Your task to perform on an android device: toggle show notifications on the lock screen Image 0: 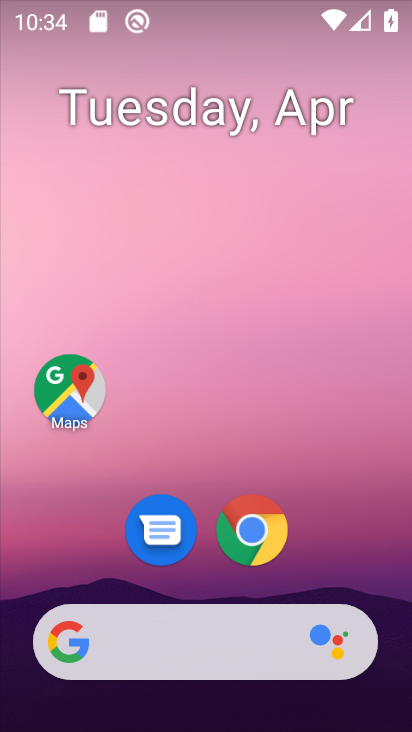
Step 0: drag from (149, 627) to (118, 147)
Your task to perform on an android device: toggle show notifications on the lock screen Image 1: 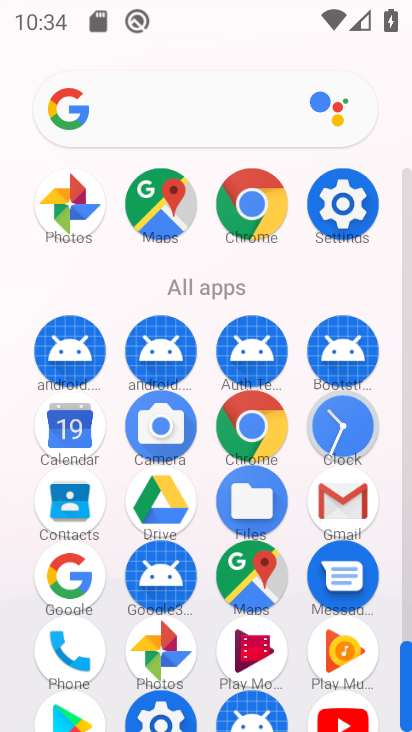
Step 1: click (340, 204)
Your task to perform on an android device: toggle show notifications on the lock screen Image 2: 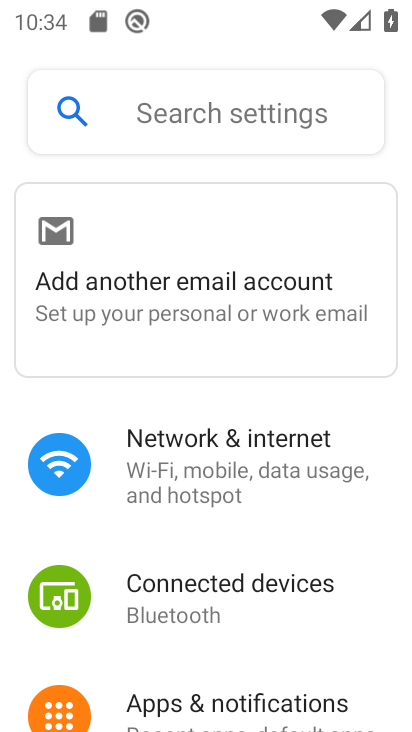
Step 2: drag from (196, 649) to (346, 160)
Your task to perform on an android device: toggle show notifications on the lock screen Image 3: 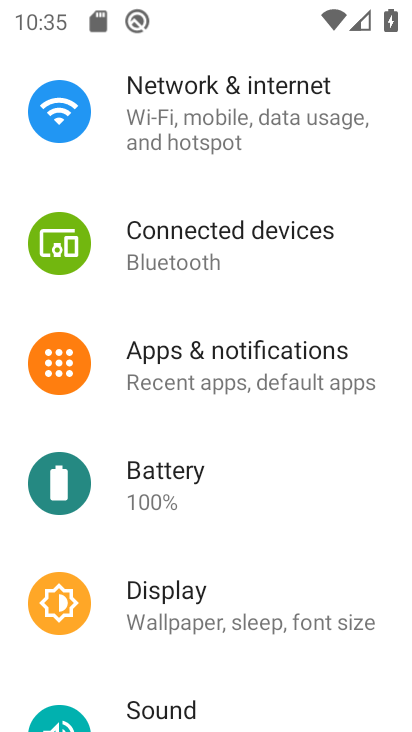
Step 3: click (227, 367)
Your task to perform on an android device: toggle show notifications on the lock screen Image 4: 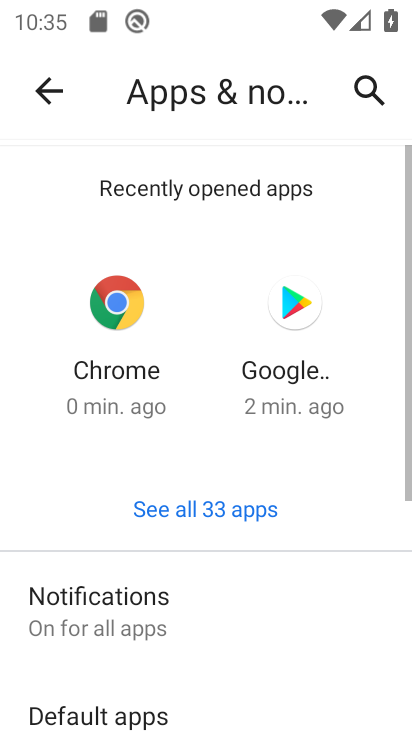
Step 4: click (104, 626)
Your task to perform on an android device: toggle show notifications on the lock screen Image 5: 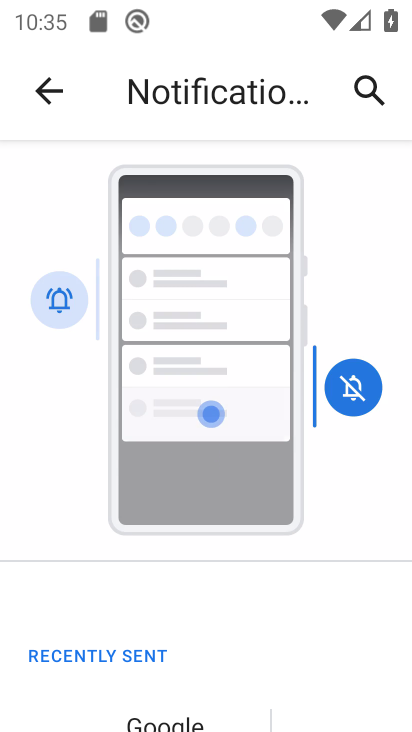
Step 5: drag from (191, 685) to (319, 101)
Your task to perform on an android device: toggle show notifications on the lock screen Image 6: 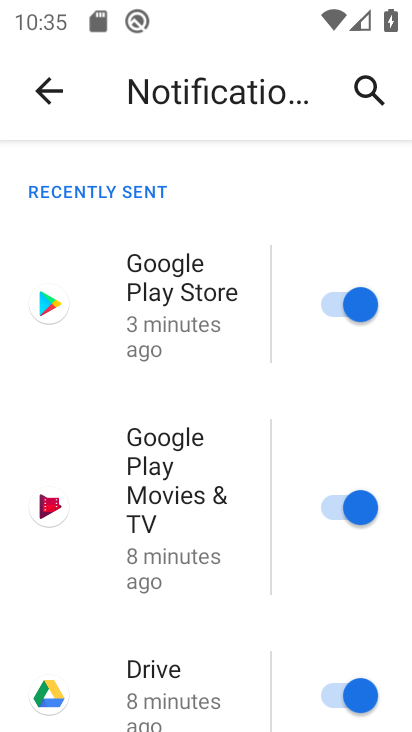
Step 6: drag from (209, 609) to (358, 66)
Your task to perform on an android device: toggle show notifications on the lock screen Image 7: 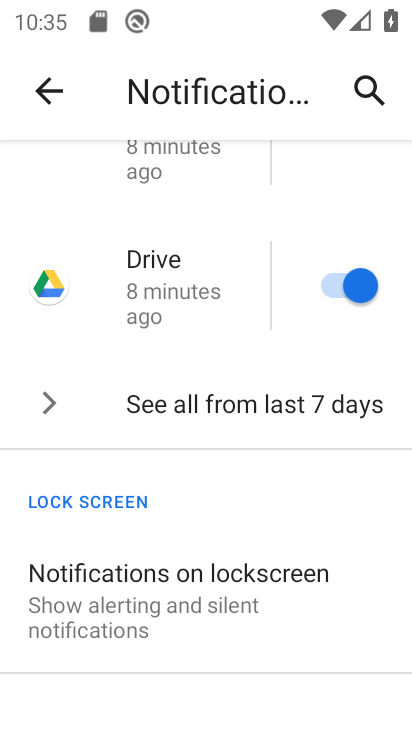
Step 7: click (189, 577)
Your task to perform on an android device: toggle show notifications on the lock screen Image 8: 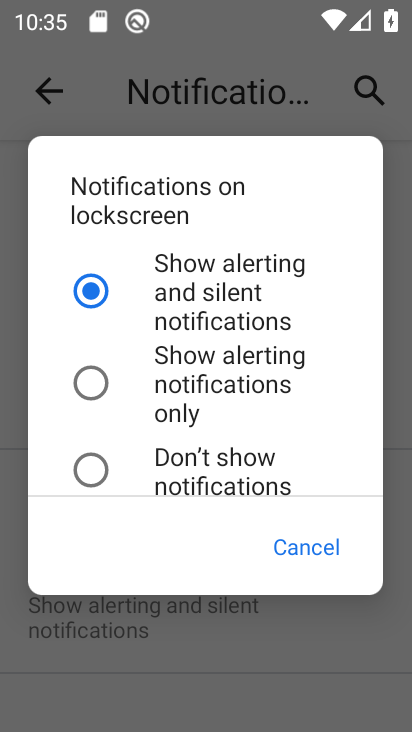
Step 8: click (91, 466)
Your task to perform on an android device: toggle show notifications on the lock screen Image 9: 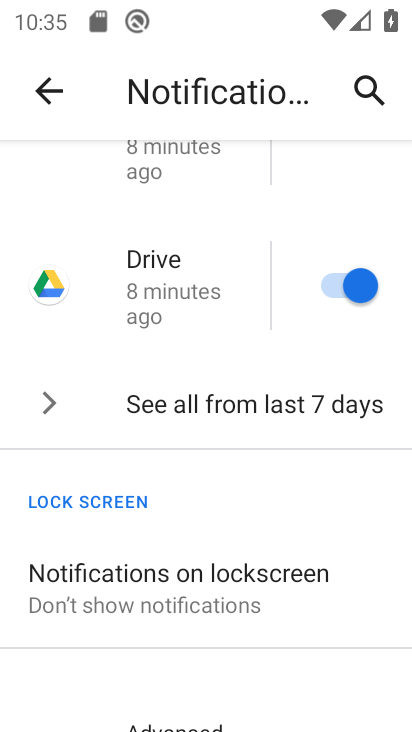
Step 9: task complete